Your task to perform on an android device: Do I have any events tomorrow? Image 0: 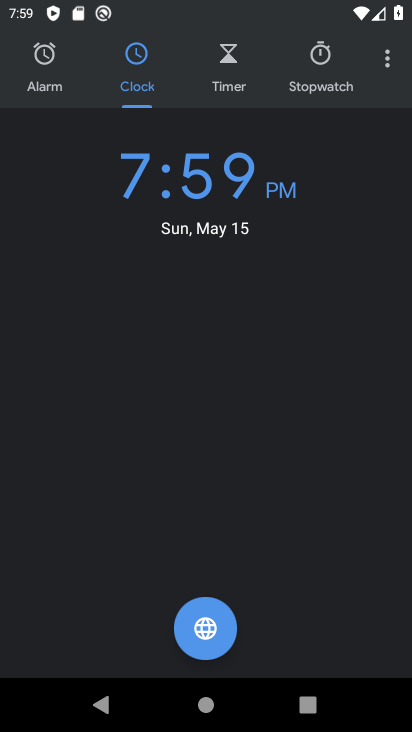
Step 0: press home button
Your task to perform on an android device: Do I have any events tomorrow? Image 1: 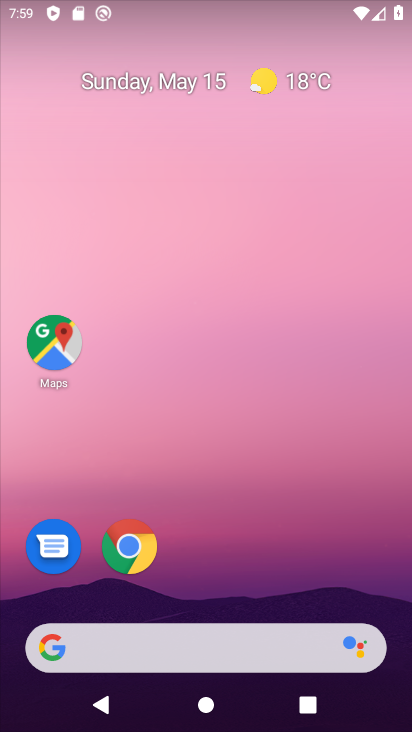
Step 1: drag from (278, 577) to (326, 219)
Your task to perform on an android device: Do I have any events tomorrow? Image 2: 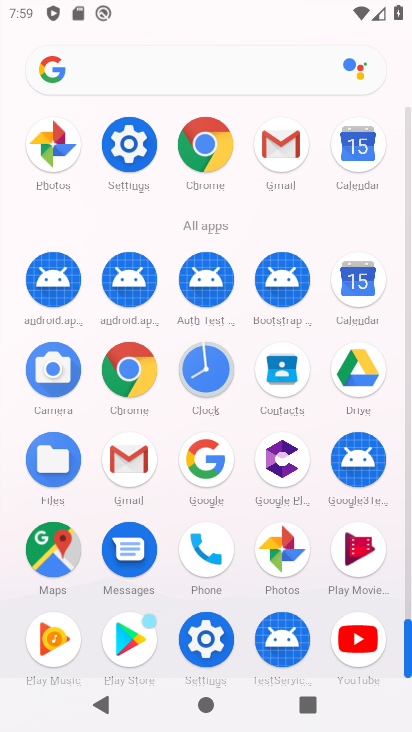
Step 2: click (352, 277)
Your task to perform on an android device: Do I have any events tomorrow? Image 3: 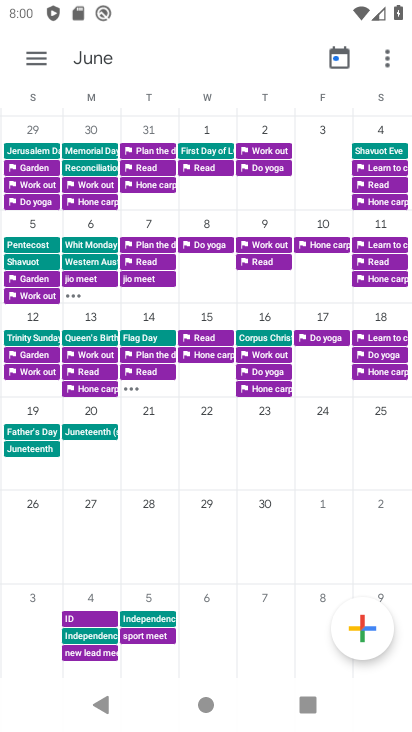
Step 3: task complete